Your task to perform on an android device: Open eBay Image 0: 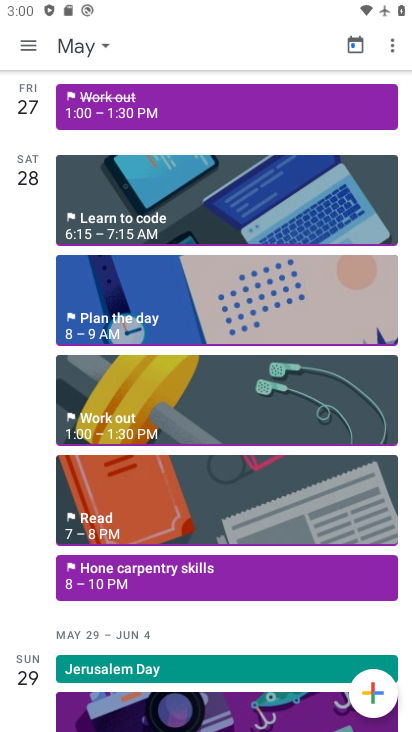
Step 0: press back button
Your task to perform on an android device: Open eBay Image 1: 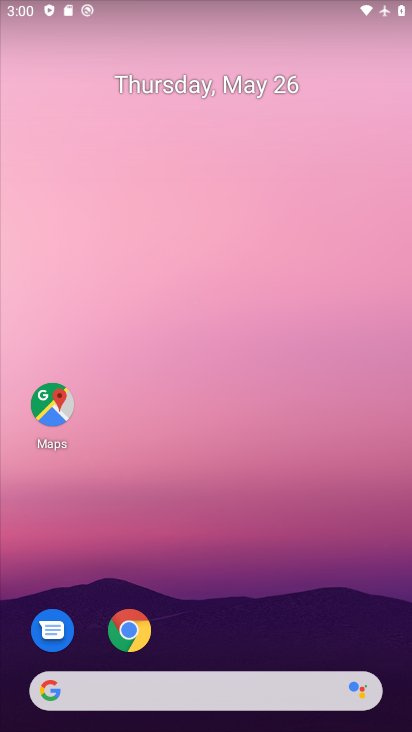
Step 1: drag from (219, 546) to (254, 66)
Your task to perform on an android device: Open eBay Image 2: 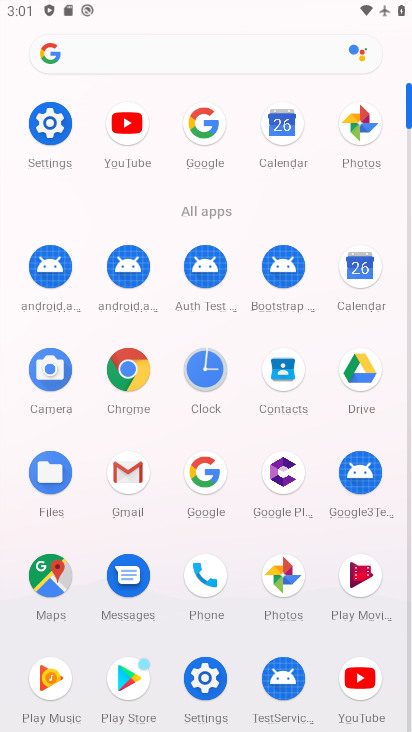
Step 2: click (203, 125)
Your task to perform on an android device: Open eBay Image 3: 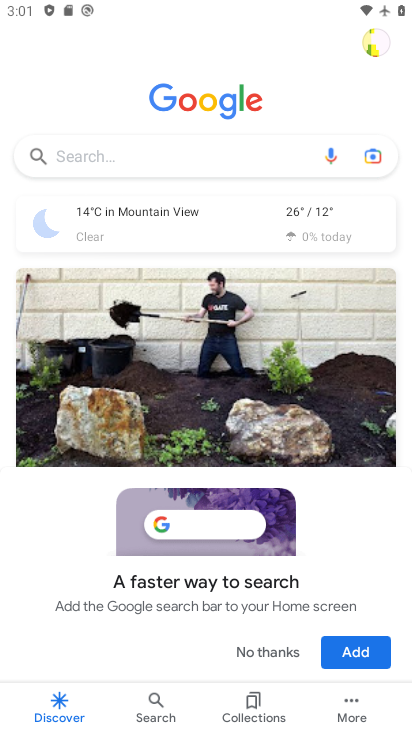
Step 3: click (158, 161)
Your task to perform on an android device: Open eBay Image 4: 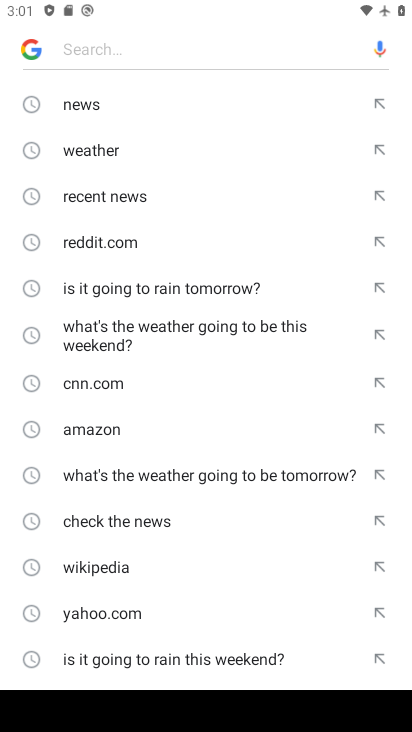
Step 4: type "eBay"
Your task to perform on an android device: Open eBay Image 5: 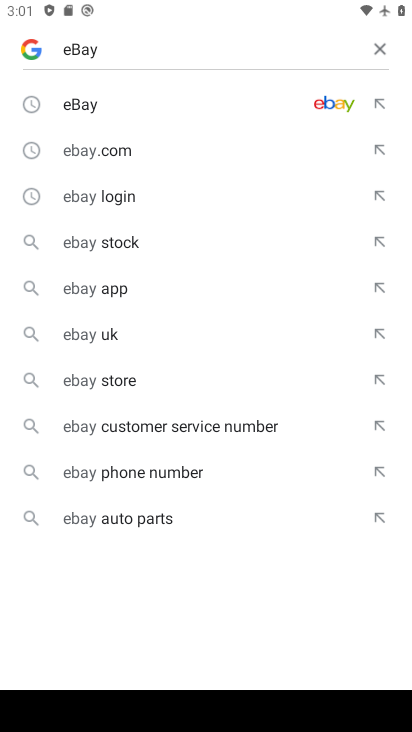
Step 5: click (90, 106)
Your task to perform on an android device: Open eBay Image 6: 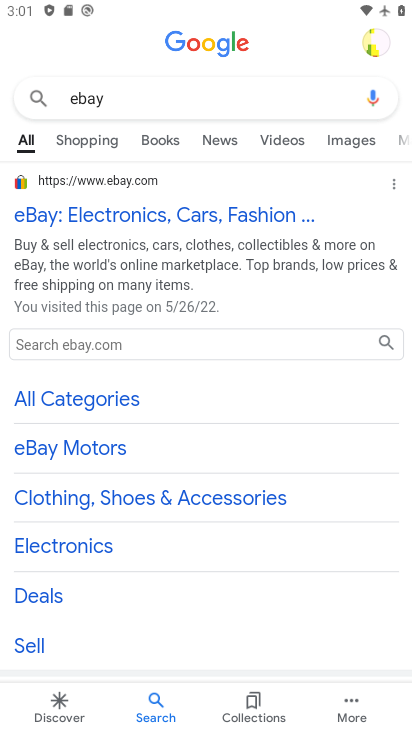
Step 6: click (67, 217)
Your task to perform on an android device: Open eBay Image 7: 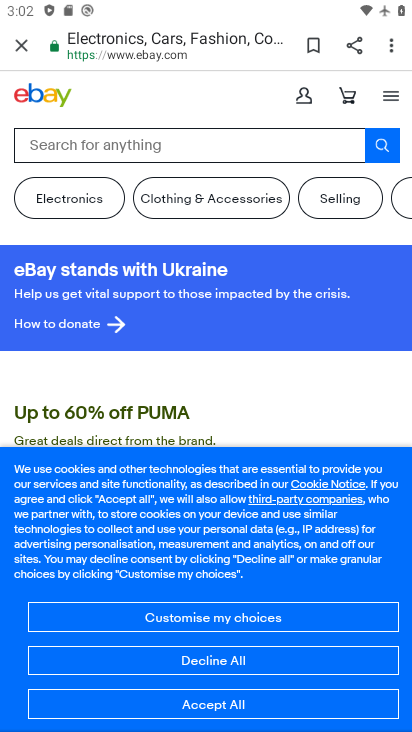
Step 7: click (205, 705)
Your task to perform on an android device: Open eBay Image 8: 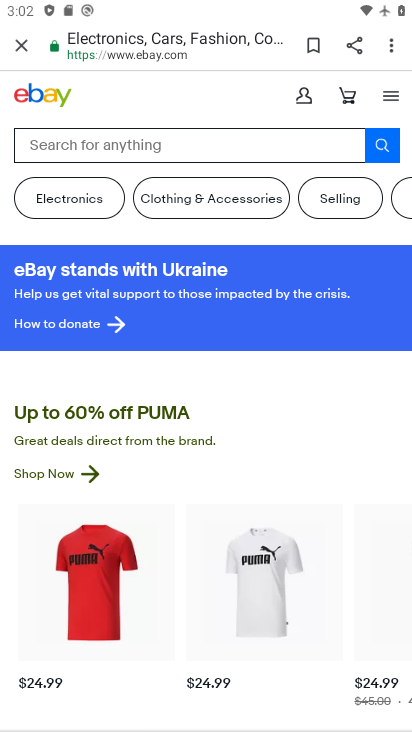
Step 8: task complete